Your task to perform on an android device: clear history in the chrome app Image 0: 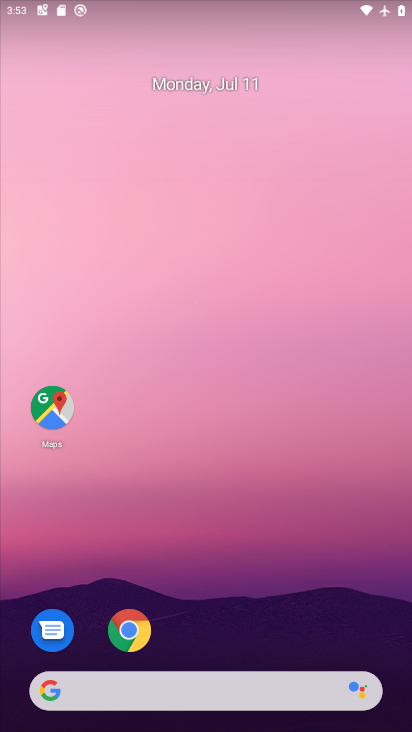
Step 0: drag from (262, 612) to (188, 61)
Your task to perform on an android device: clear history in the chrome app Image 1: 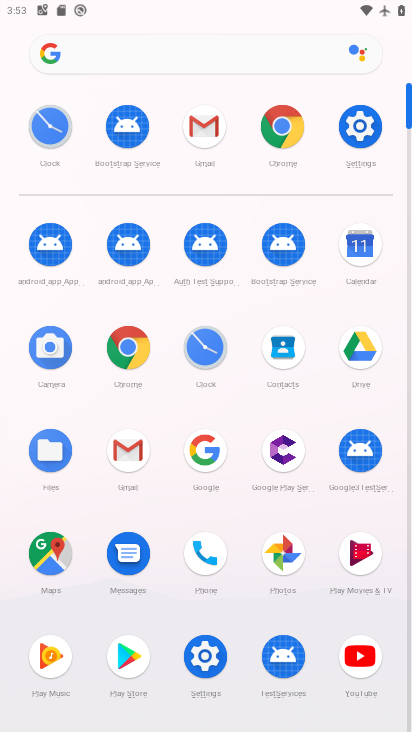
Step 1: click (131, 328)
Your task to perform on an android device: clear history in the chrome app Image 2: 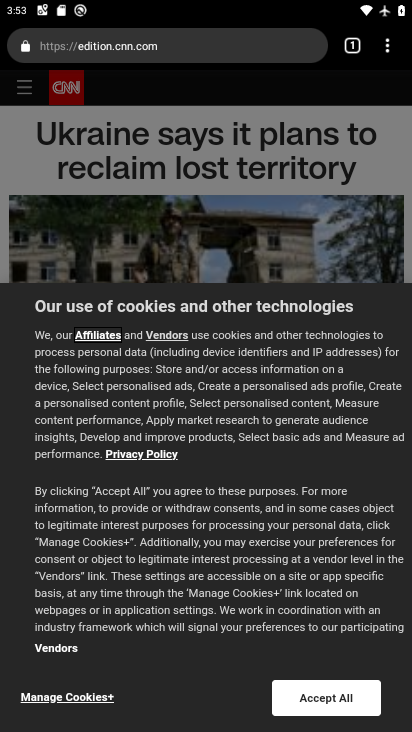
Step 2: click (387, 57)
Your task to perform on an android device: clear history in the chrome app Image 3: 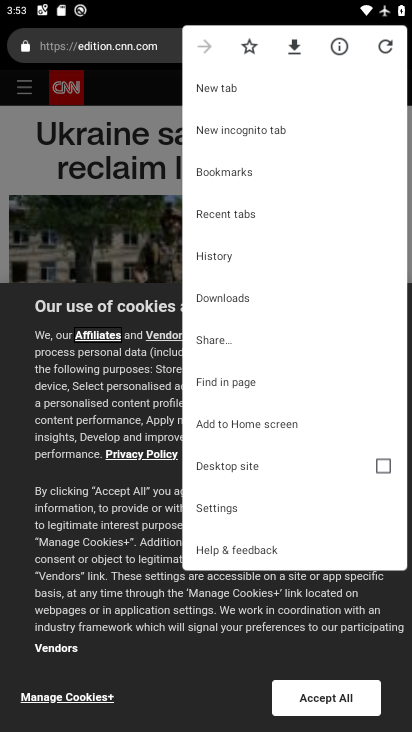
Step 3: click (229, 266)
Your task to perform on an android device: clear history in the chrome app Image 4: 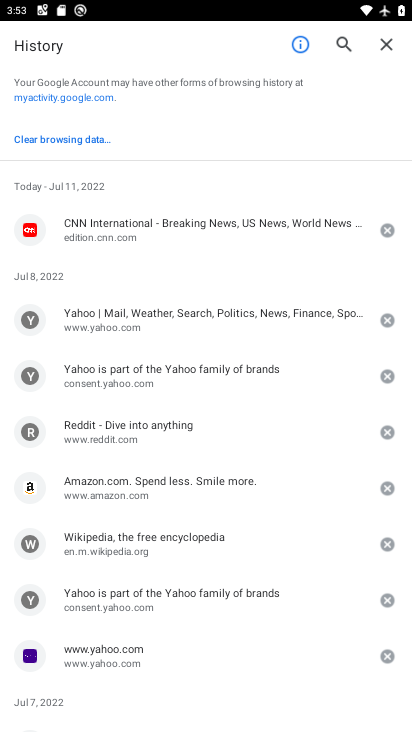
Step 4: click (64, 133)
Your task to perform on an android device: clear history in the chrome app Image 5: 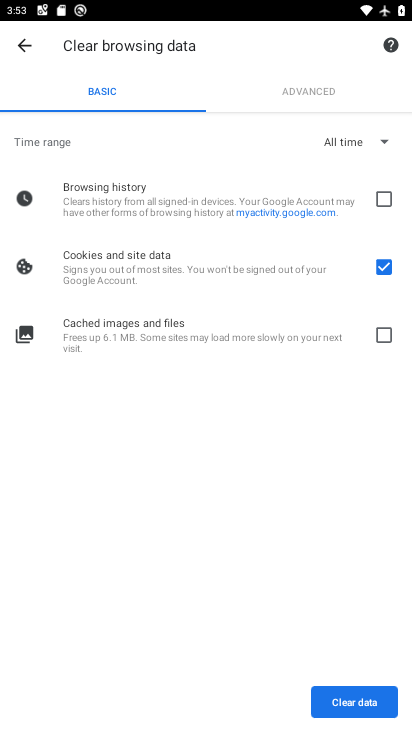
Step 5: click (358, 704)
Your task to perform on an android device: clear history in the chrome app Image 6: 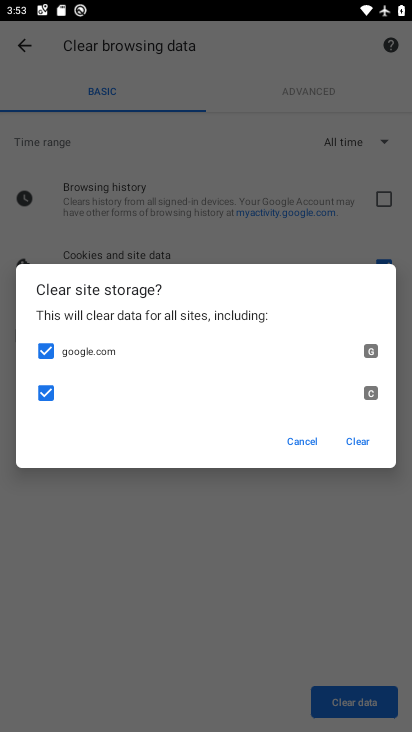
Step 6: click (353, 439)
Your task to perform on an android device: clear history in the chrome app Image 7: 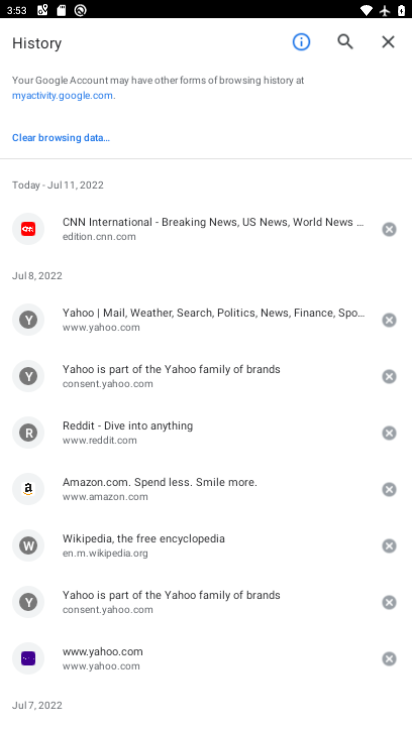
Step 7: task complete